Your task to perform on an android device: turn on location history Image 0: 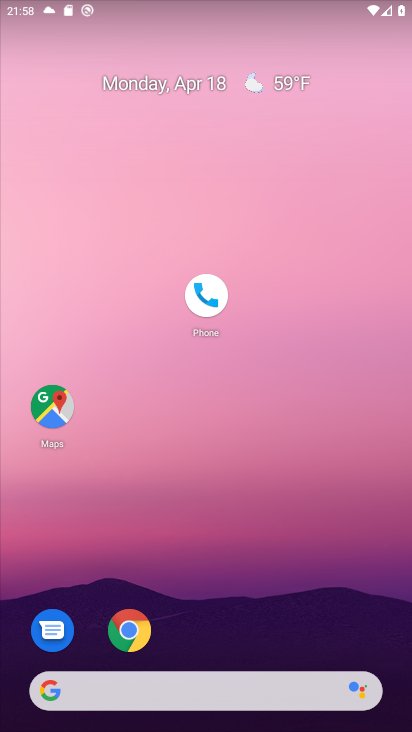
Step 0: drag from (300, 584) to (340, 68)
Your task to perform on an android device: turn on location history Image 1: 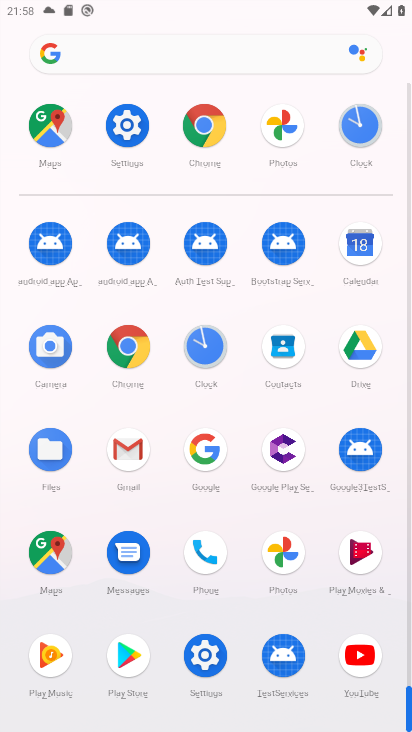
Step 1: click (127, 127)
Your task to perform on an android device: turn on location history Image 2: 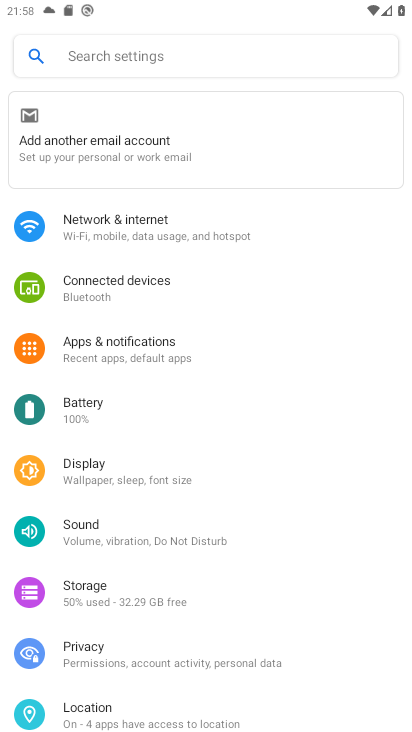
Step 2: drag from (278, 392) to (292, 357)
Your task to perform on an android device: turn on location history Image 3: 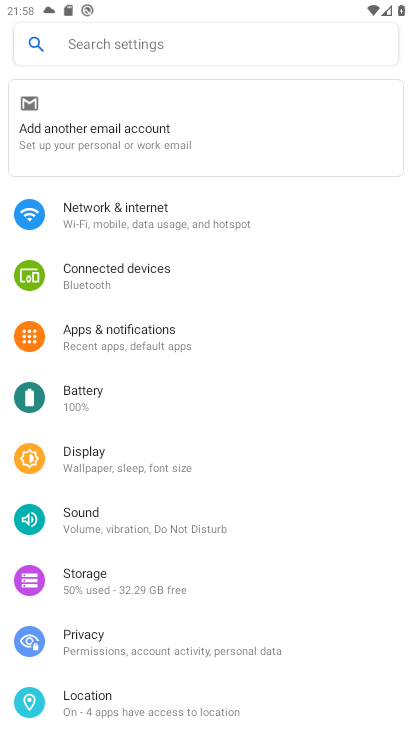
Step 3: click (113, 693)
Your task to perform on an android device: turn on location history Image 4: 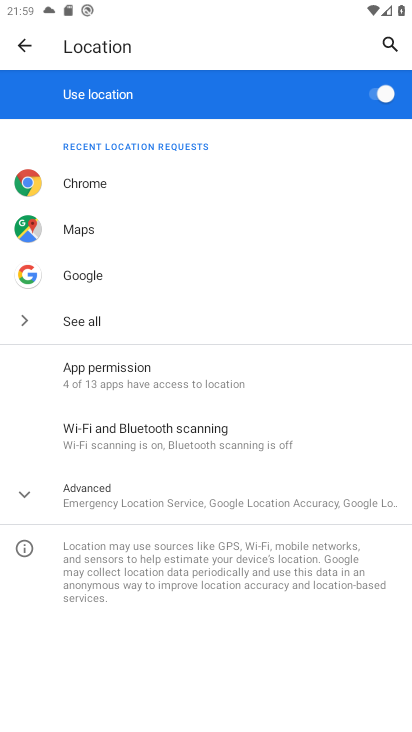
Step 4: click (142, 491)
Your task to perform on an android device: turn on location history Image 5: 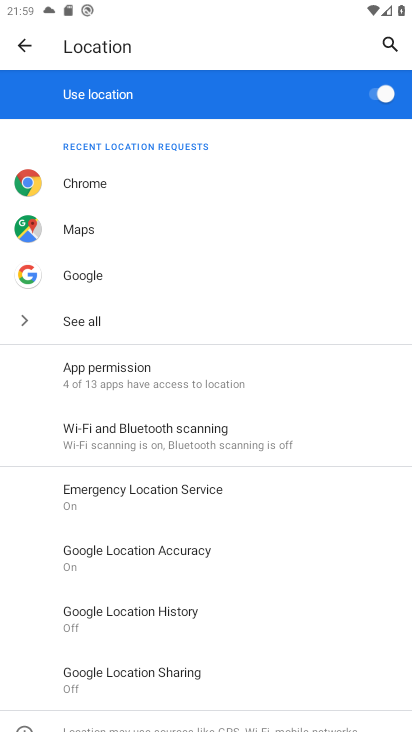
Step 5: click (177, 609)
Your task to perform on an android device: turn on location history Image 6: 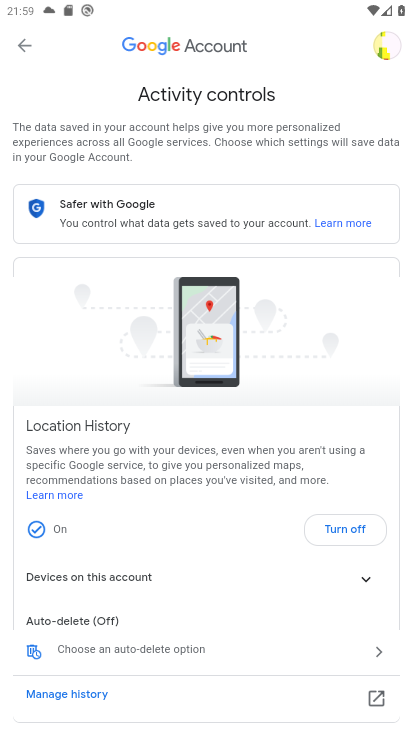
Step 6: task complete